Your task to perform on an android device: delete browsing data in the chrome app Image 0: 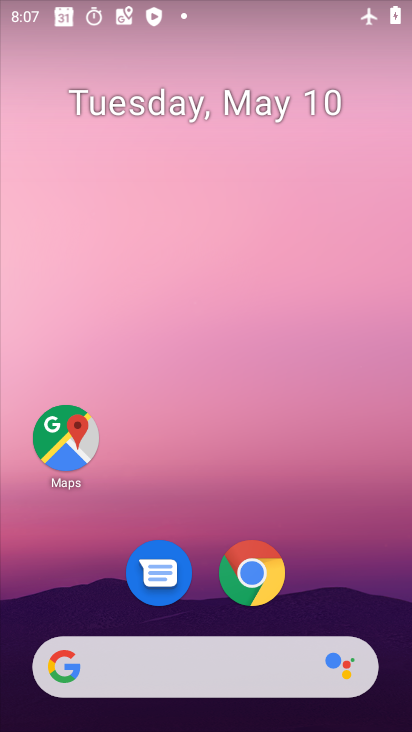
Step 0: drag from (364, 588) to (326, 125)
Your task to perform on an android device: delete browsing data in the chrome app Image 1: 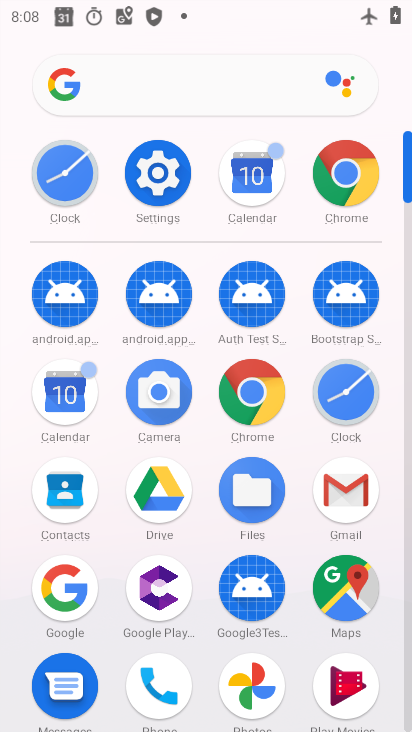
Step 1: click (273, 405)
Your task to perform on an android device: delete browsing data in the chrome app Image 2: 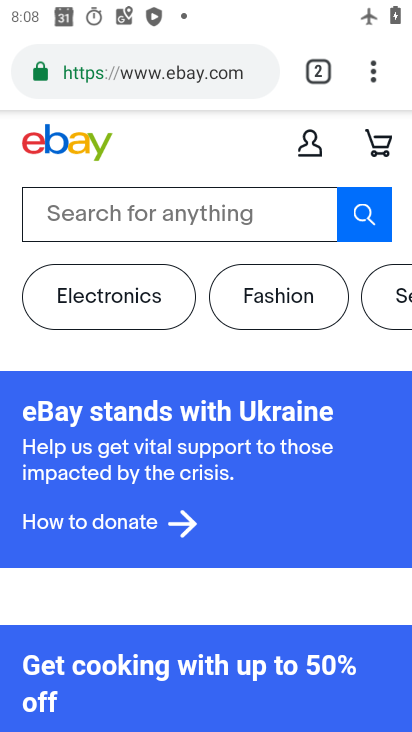
Step 2: drag from (382, 87) to (257, 163)
Your task to perform on an android device: delete browsing data in the chrome app Image 3: 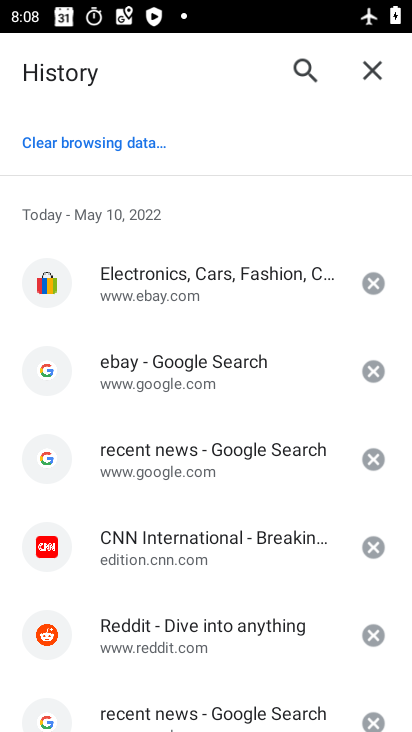
Step 3: click (139, 142)
Your task to perform on an android device: delete browsing data in the chrome app Image 4: 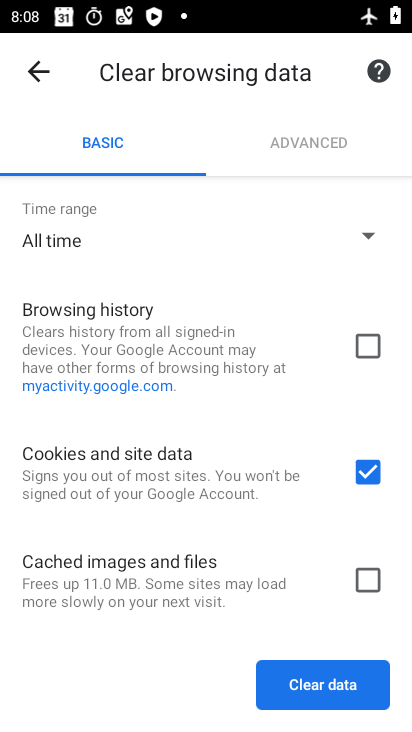
Step 4: click (369, 345)
Your task to perform on an android device: delete browsing data in the chrome app Image 5: 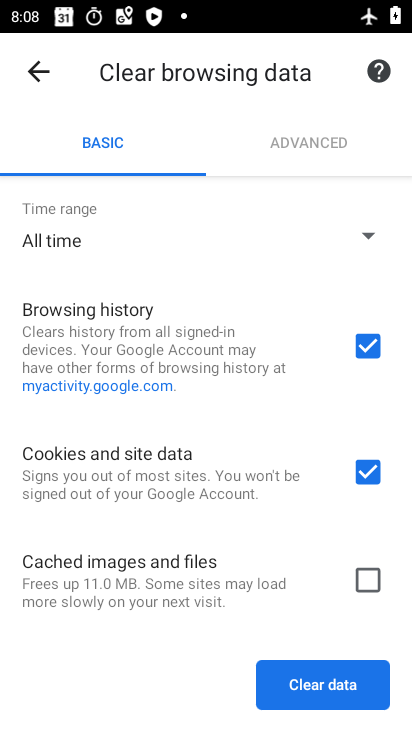
Step 5: click (345, 692)
Your task to perform on an android device: delete browsing data in the chrome app Image 6: 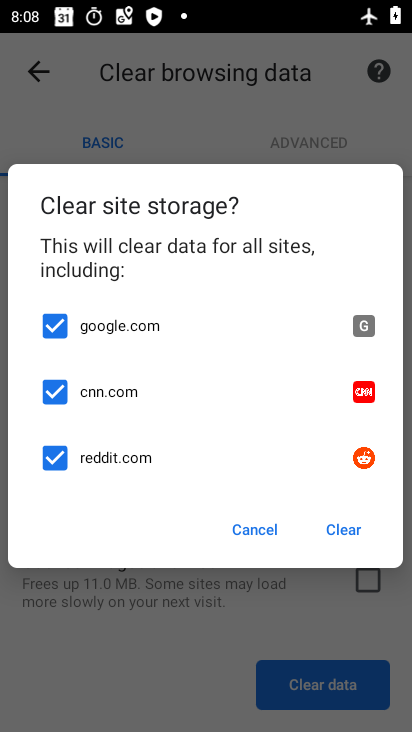
Step 6: click (338, 529)
Your task to perform on an android device: delete browsing data in the chrome app Image 7: 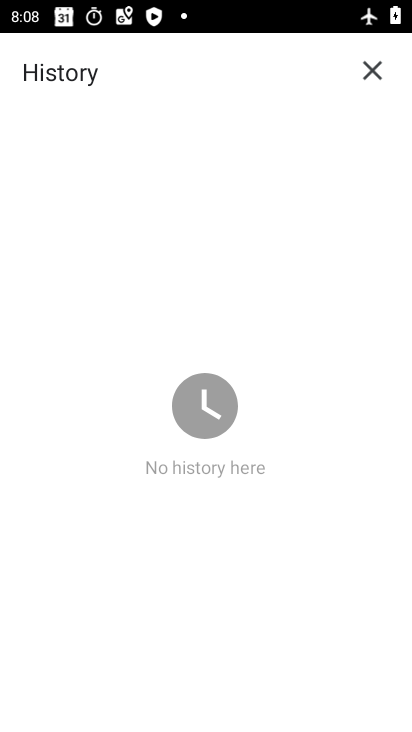
Step 7: task complete